Your task to perform on an android device: Open the calendar and show me this week's events? Image 0: 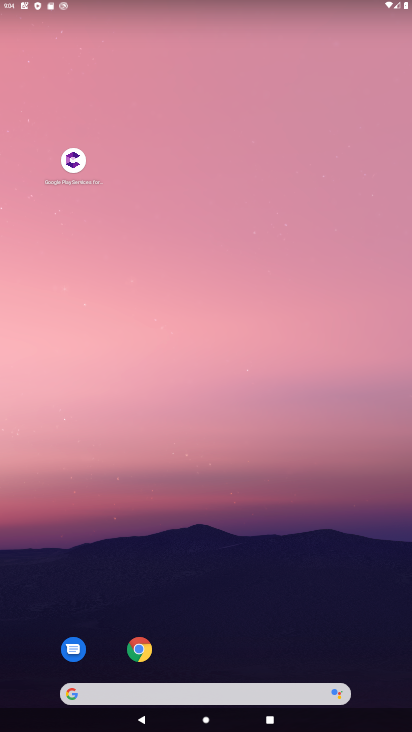
Step 0: drag from (367, 618) to (386, 22)
Your task to perform on an android device: Open the calendar and show me this week's events? Image 1: 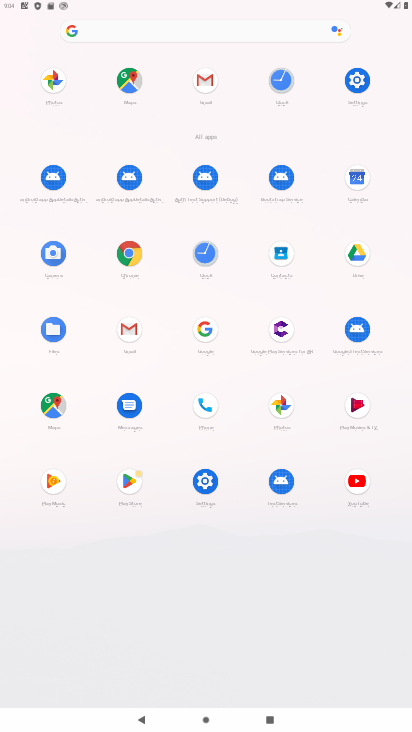
Step 1: click (355, 177)
Your task to perform on an android device: Open the calendar and show me this week's events? Image 2: 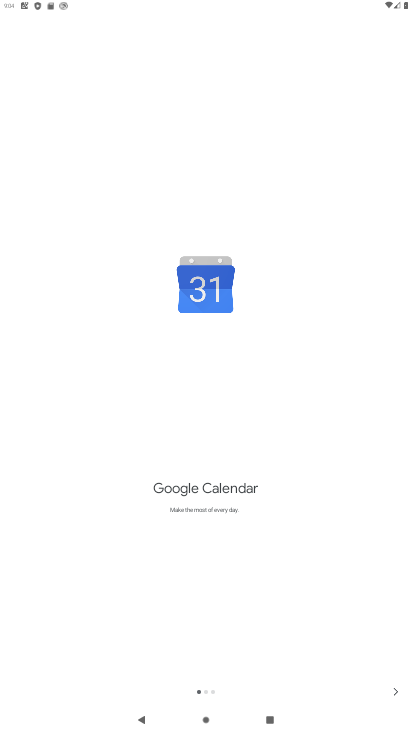
Step 2: click (391, 694)
Your task to perform on an android device: Open the calendar and show me this week's events? Image 3: 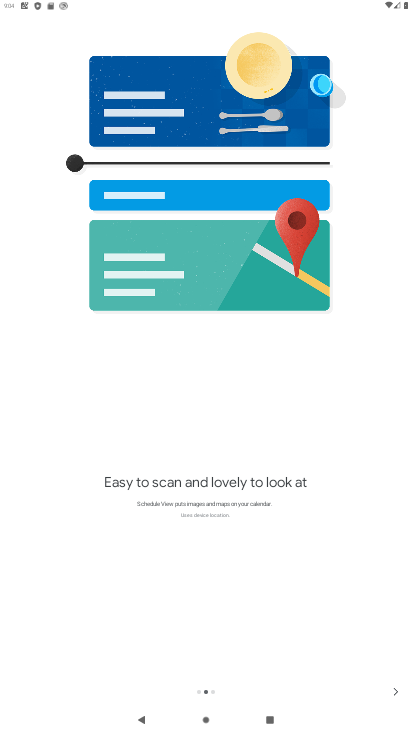
Step 3: click (391, 694)
Your task to perform on an android device: Open the calendar and show me this week's events? Image 4: 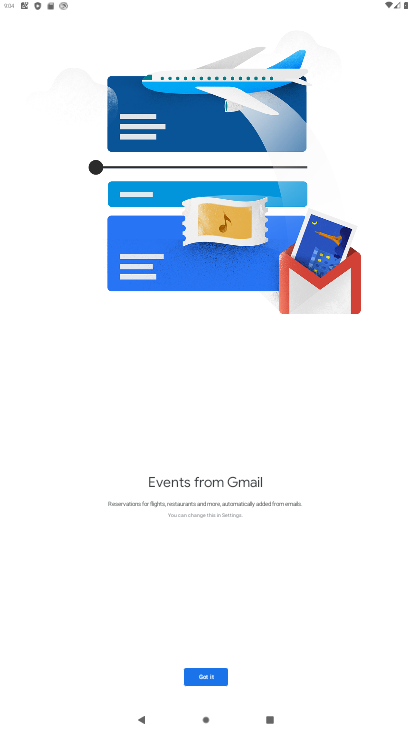
Step 4: click (201, 680)
Your task to perform on an android device: Open the calendar and show me this week's events? Image 5: 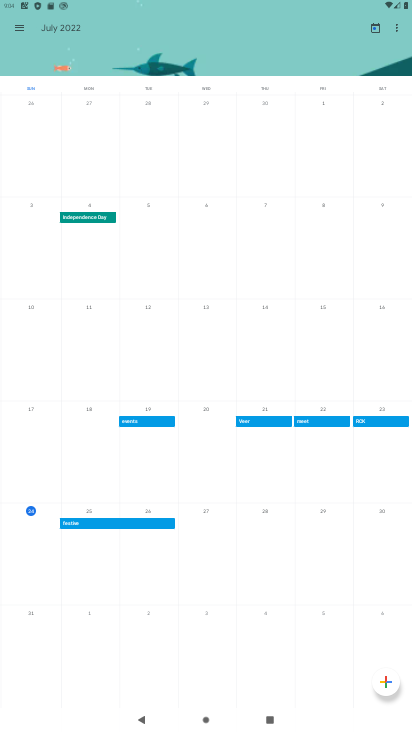
Step 5: click (23, 29)
Your task to perform on an android device: Open the calendar and show me this week's events? Image 6: 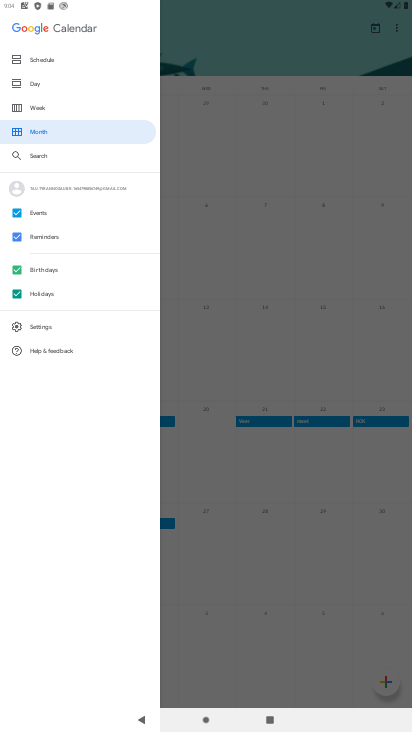
Step 6: click (62, 67)
Your task to perform on an android device: Open the calendar and show me this week's events? Image 7: 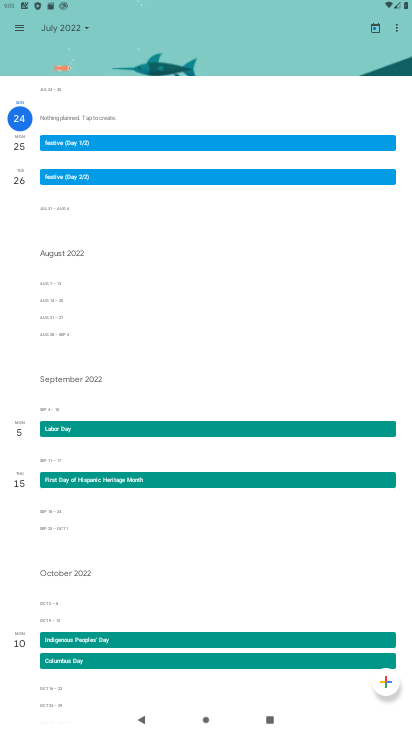
Step 7: task complete